Your task to perform on an android device: What is the recent news? Image 0: 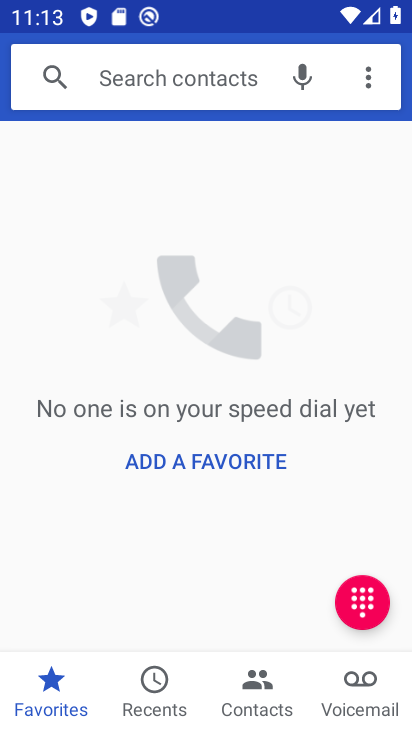
Step 0: task complete